Your task to perform on an android device: Go to privacy settings Image 0: 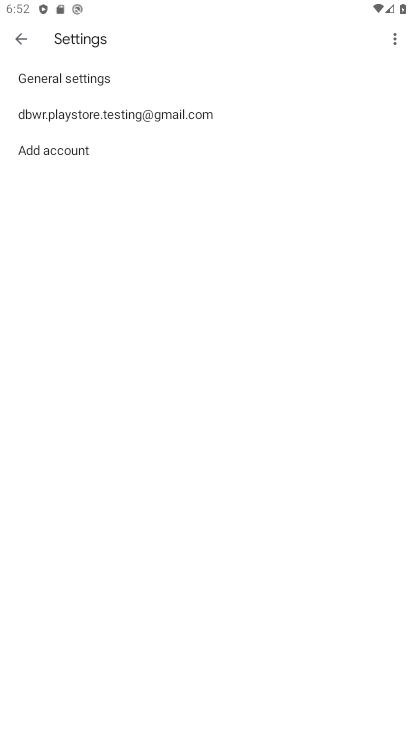
Step 0: press home button
Your task to perform on an android device: Go to privacy settings Image 1: 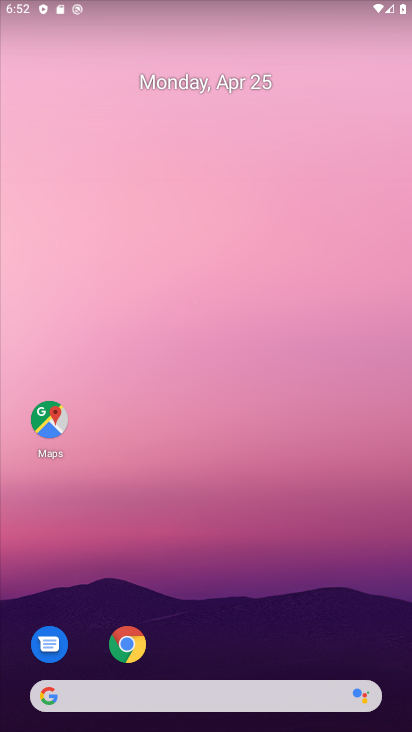
Step 1: drag from (263, 562) to (303, 128)
Your task to perform on an android device: Go to privacy settings Image 2: 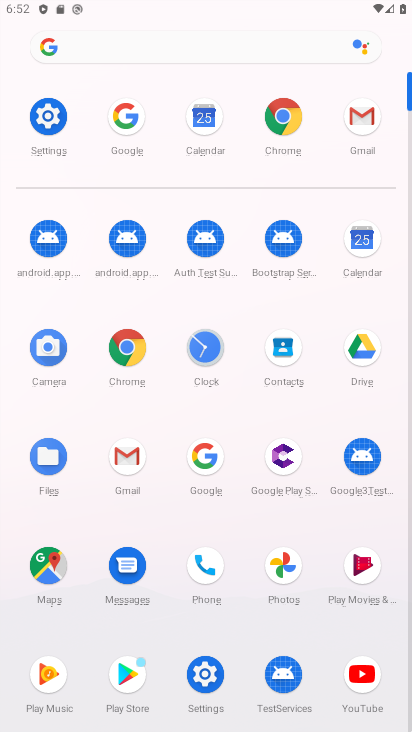
Step 2: click (204, 670)
Your task to perform on an android device: Go to privacy settings Image 3: 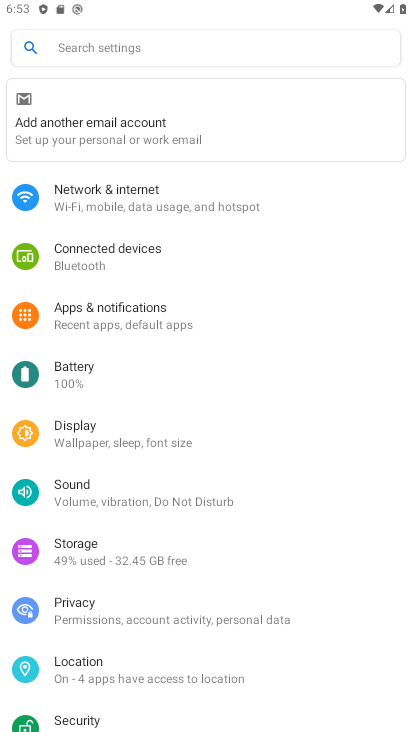
Step 3: click (147, 613)
Your task to perform on an android device: Go to privacy settings Image 4: 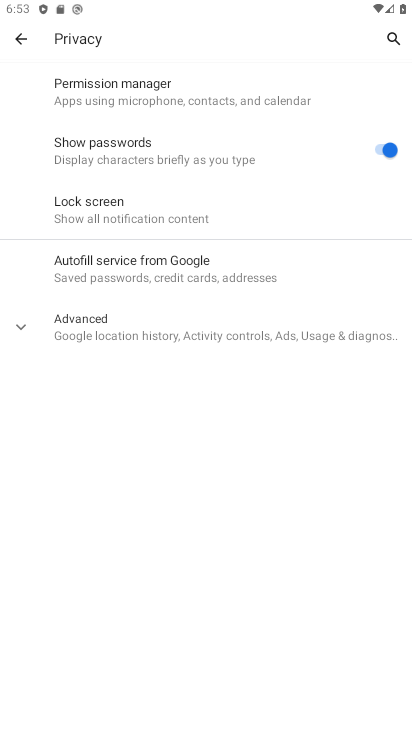
Step 4: click (176, 326)
Your task to perform on an android device: Go to privacy settings Image 5: 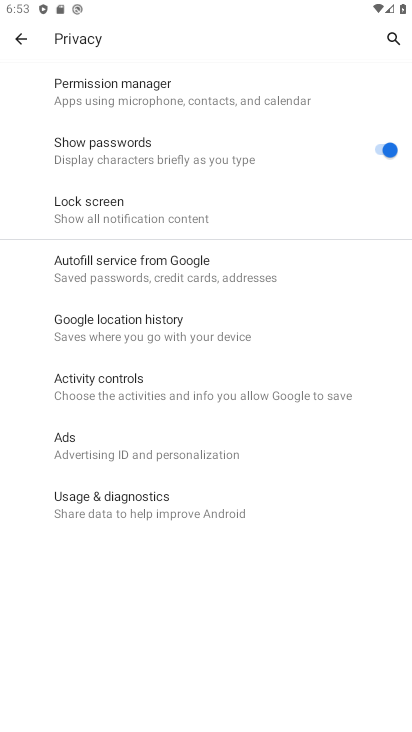
Step 5: task complete